Your task to perform on an android device: change the clock display to show seconds Image 0: 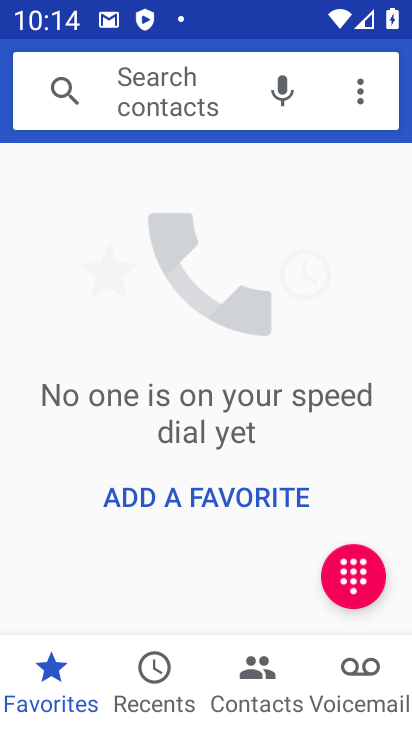
Step 0: press home button
Your task to perform on an android device: change the clock display to show seconds Image 1: 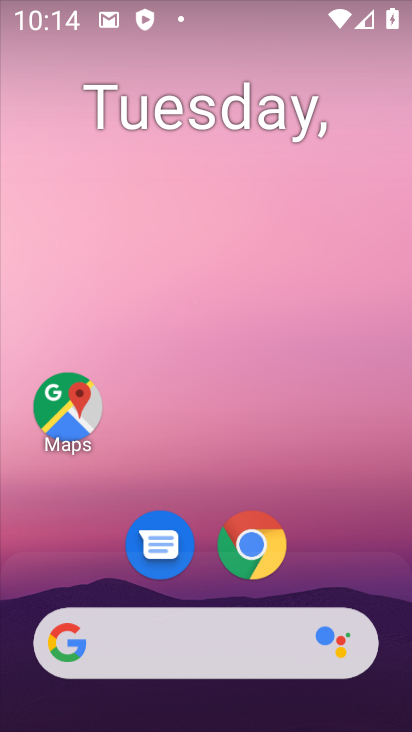
Step 1: drag from (326, 540) to (357, 75)
Your task to perform on an android device: change the clock display to show seconds Image 2: 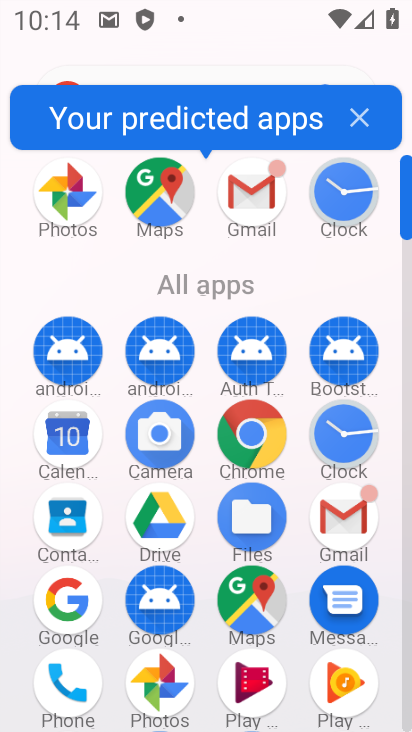
Step 2: click (346, 202)
Your task to perform on an android device: change the clock display to show seconds Image 3: 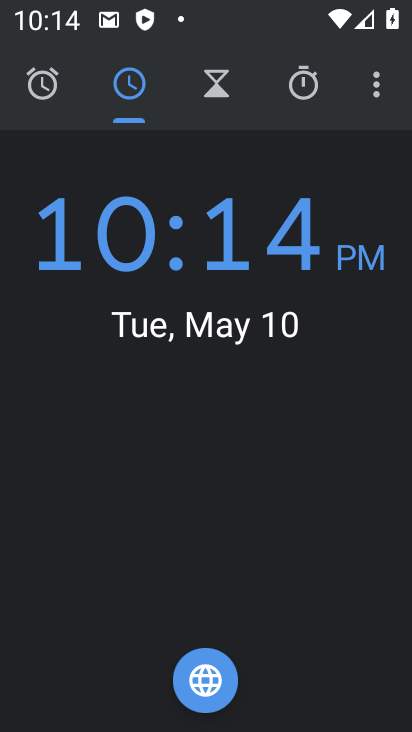
Step 3: click (376, 96)
Your task to perform on an android device: change the clock display to show seconds Image 4: 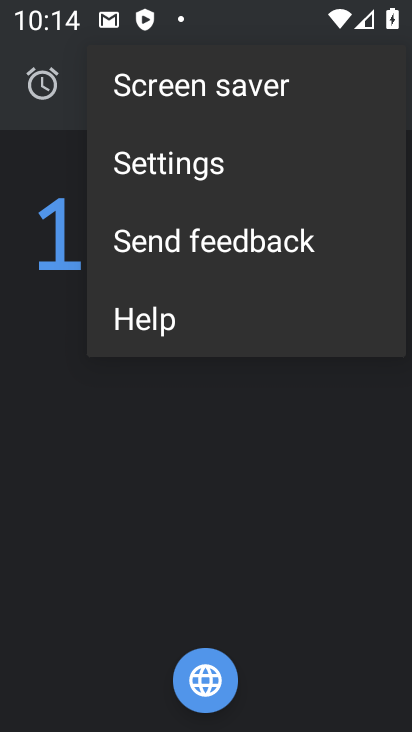
Step 4: click (281, 165)
Your task to perform on an android device: change the clock display to show seconds Image 5: 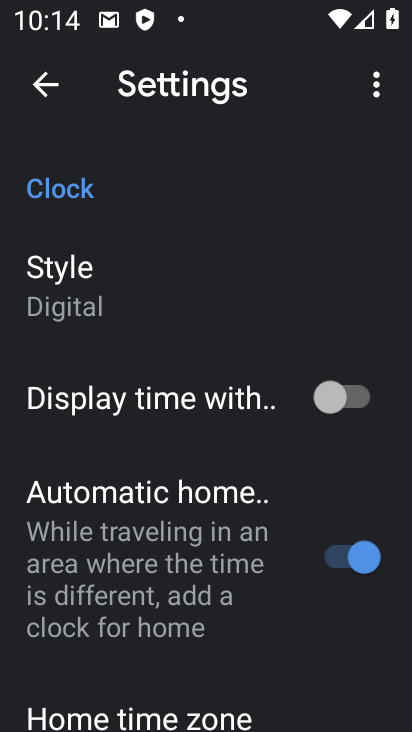
Step 5: click (355, 397)
Your task to perform on an android device: change the clock display to show seconds Image 6: 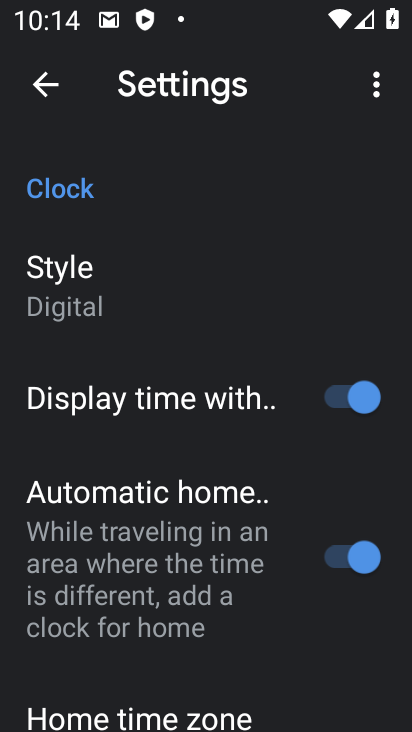
Step 6: task complete